Your task to perform on an android device: turn off translation in the chrome app Image 0: 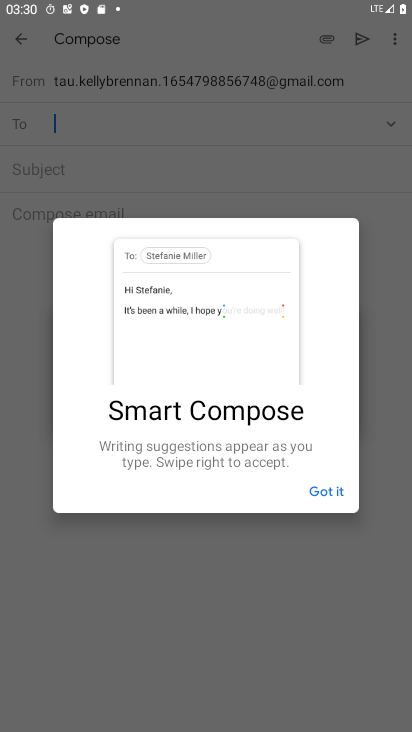
Step 0: press home button
Your task to perform on an android device: turn off translation in the chrome app Image 1: 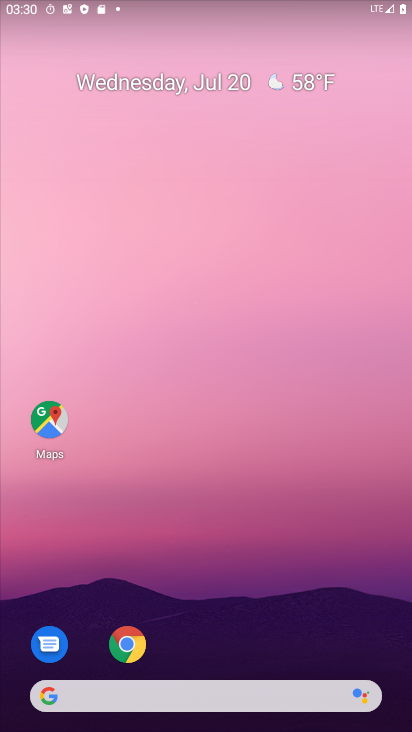
Step 1: click (116, 660)
Your task to perform on an android device: turn off translation in the chrome app Image 2: 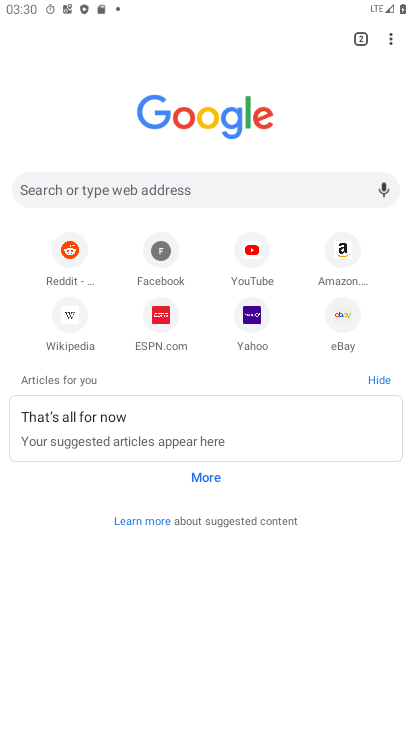
Step 2: click (398, 39)
Your task to perform on an android device: turn off translation in the chrome app Image 3: 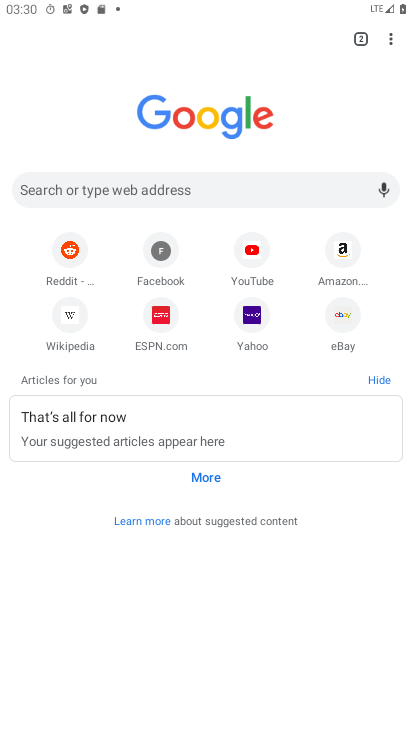
Step 3: click (397, 40)
Your task to perform on an android device: turn off translation in the chrome app Image 4: 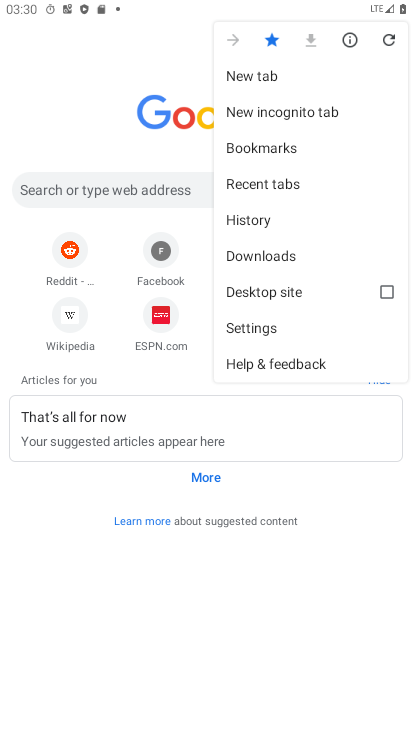
Step 4: click (249, 336)
Your task to perform on an android device: turn off translation in the chrome app Image 5: 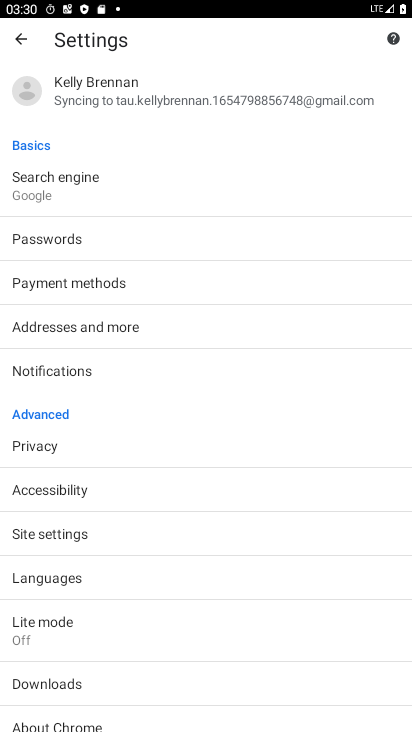
Step 5: click (83, 568)
Your task to perform on an android device: turn off translation in the chrome app Image 6: 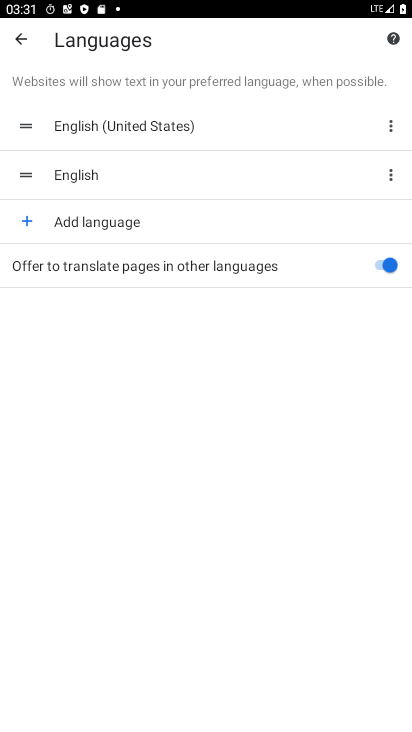
Step 6: task complete